Your task to perform on an android device: Search for good Greek restaurants Image 0: 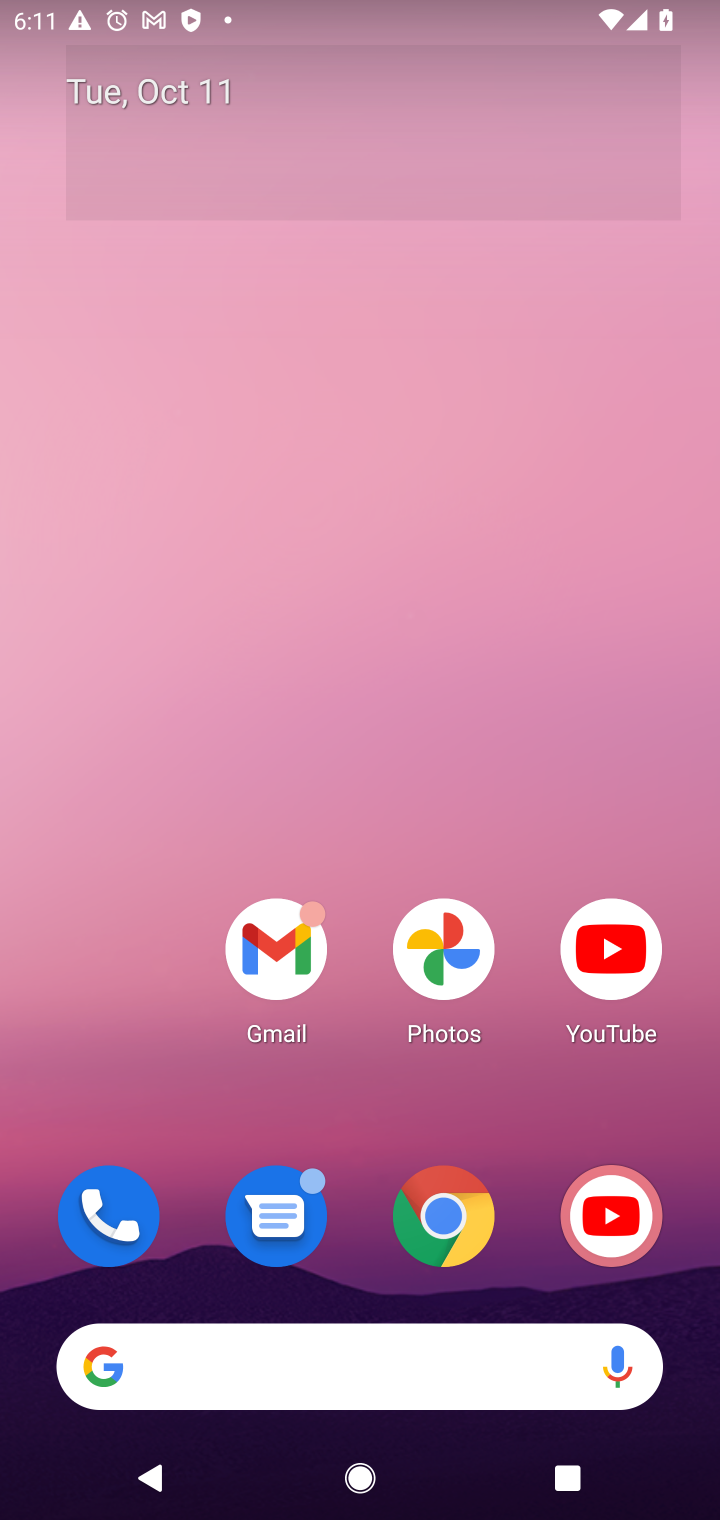
Step 0: click (437, 1249)
Your task to perform on an android device: Search for good Greek restaurants Image 1: 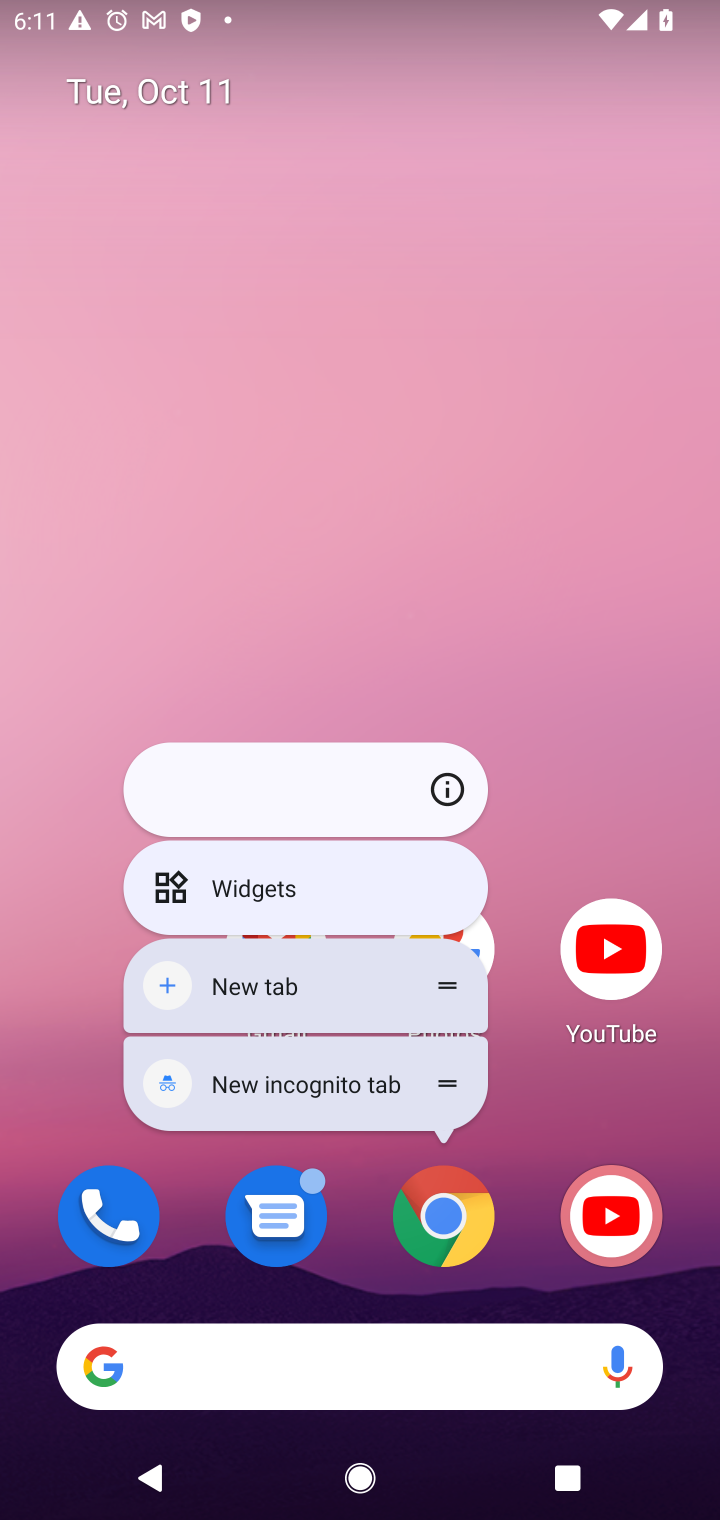
Step 1: click (437, 1247)
Your task to perform on an android device: Search for good Greek restaurants Image 2: 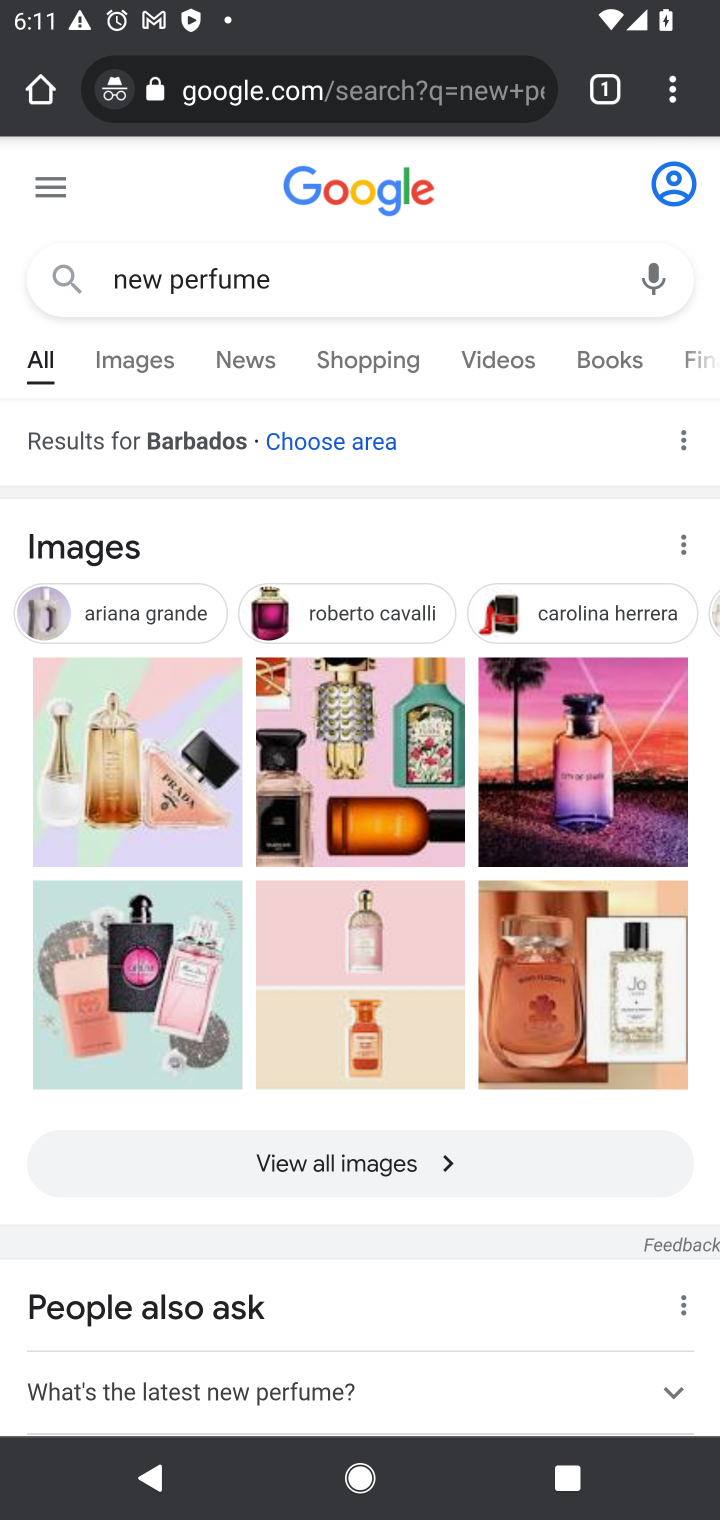
Step 2: click (464, 273)
Your task to perform on an android device: Search for good Greek restaurants Image 3: 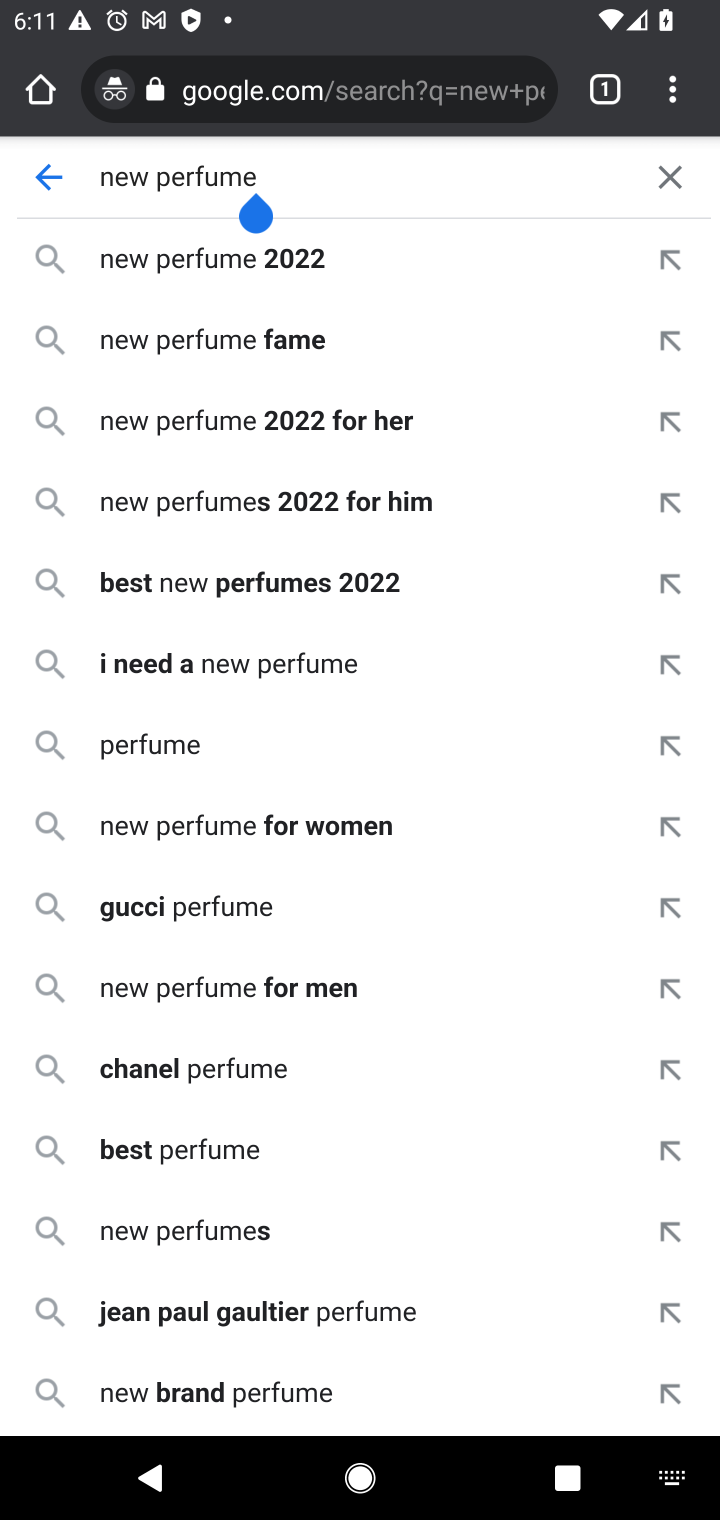
Step 3: click (665, 190)
Your task to perform on an android device: Search for good Greek restaurants Image 4: 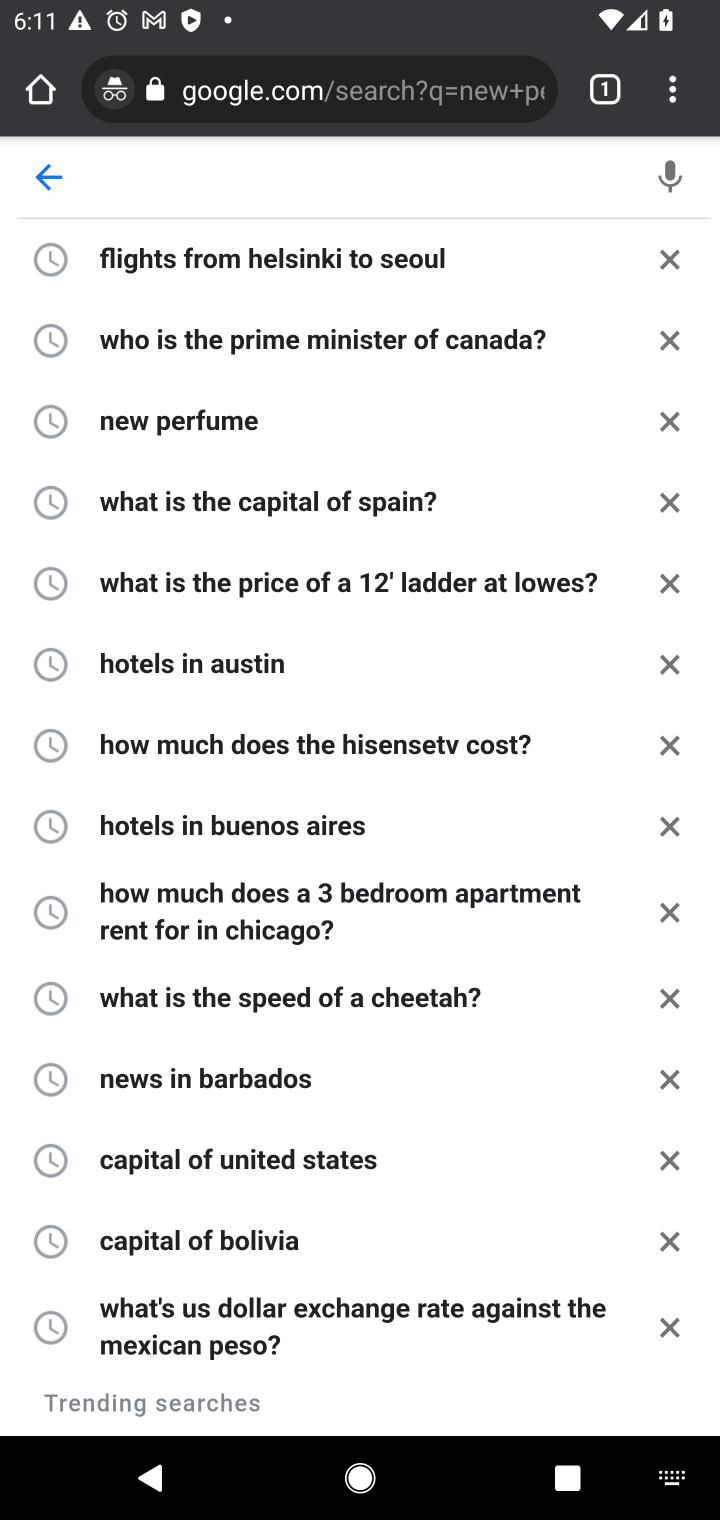
Step 4: type "good Greek restaurants"
Your task to perform on an android device: Search for good Greek restaurants Image 5: 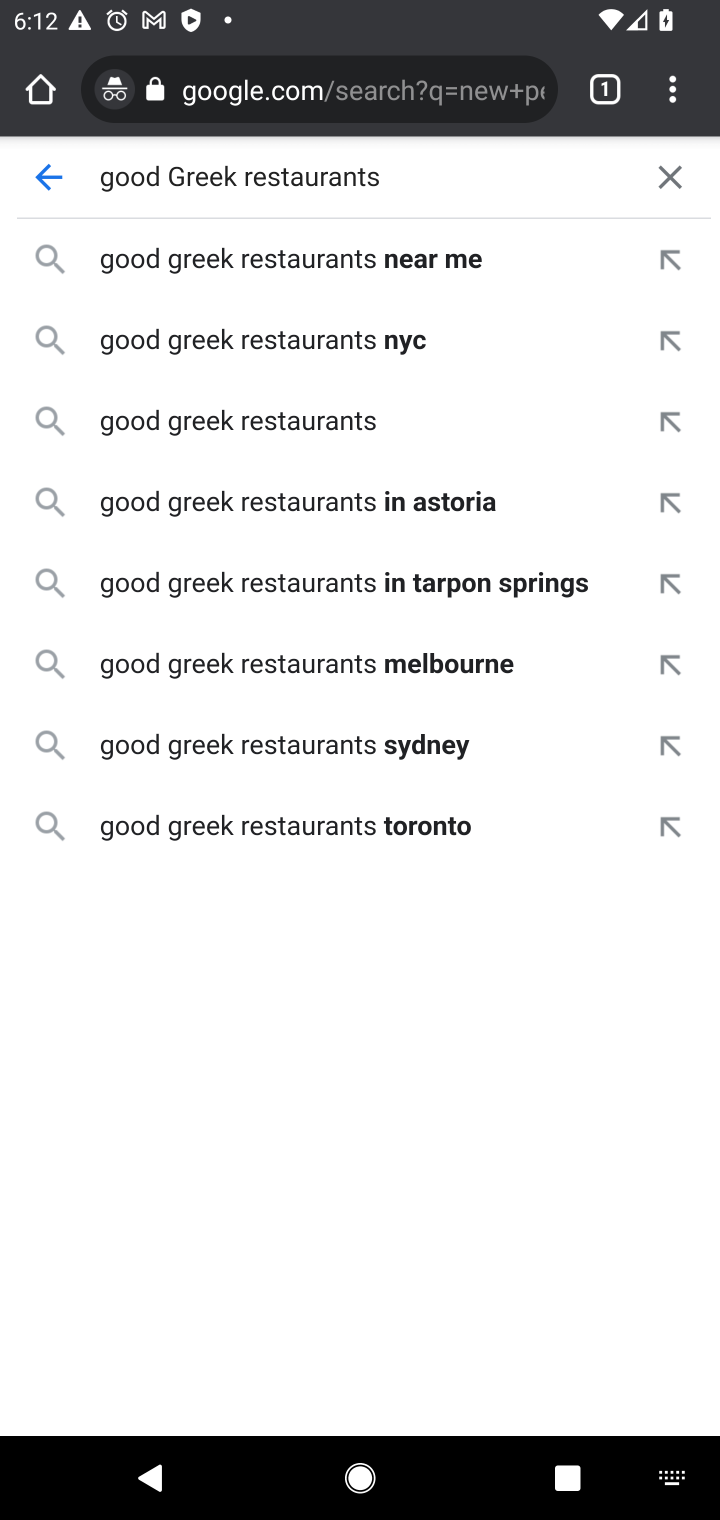
Step 5: press enter
Your task to perform on an android device: Search for good Greek restaurants Image 6: 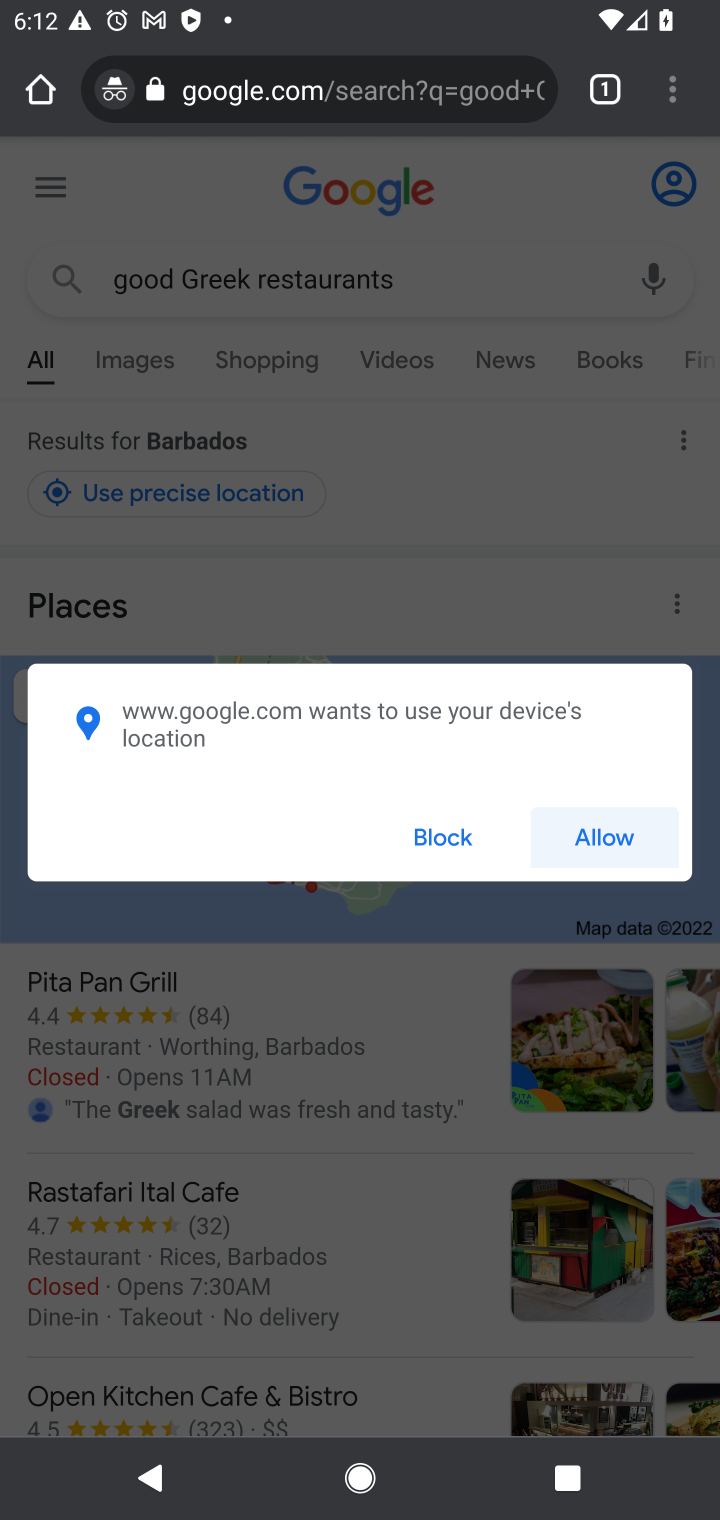
Step 6: click (597, 839)
Your task to perform on an android device: Search for good Greek restaurants Image 7: 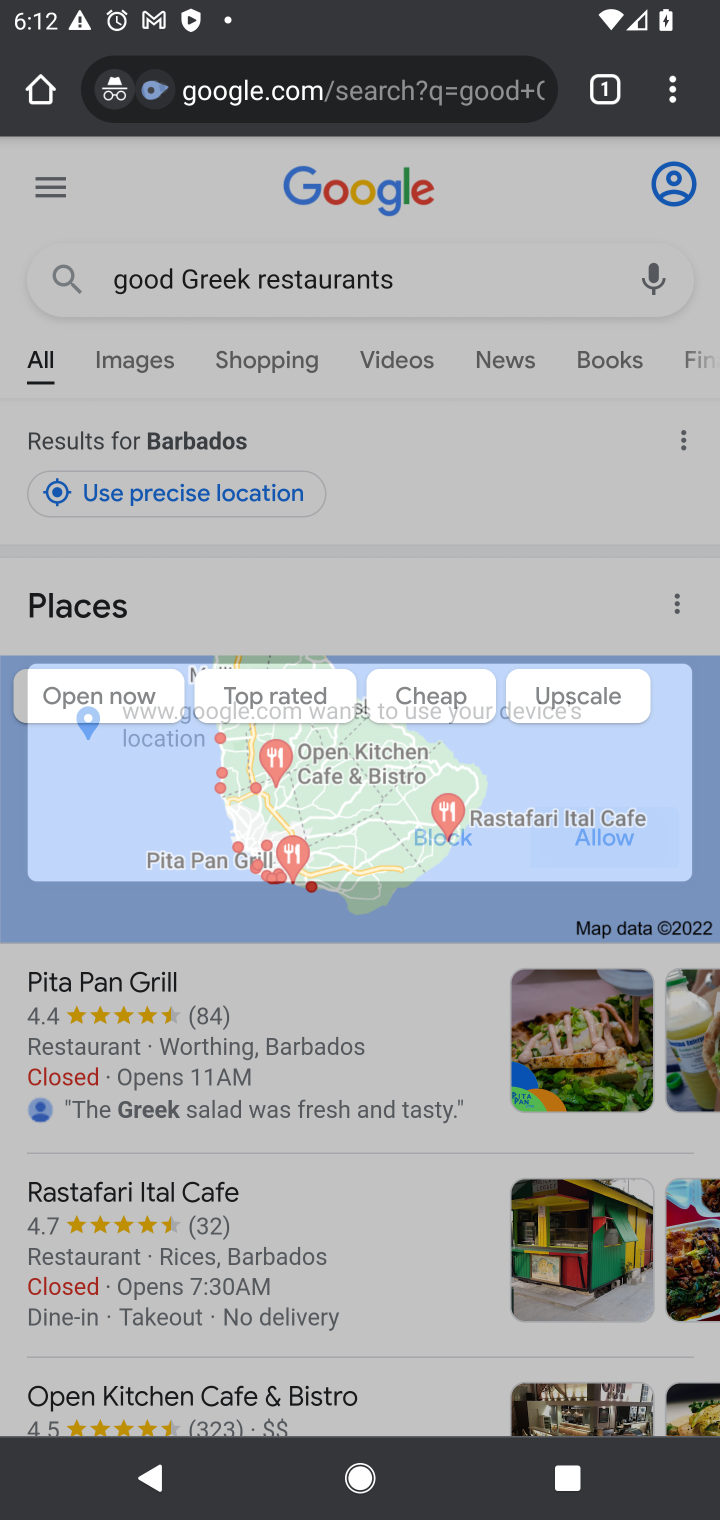
Step 7: task complete